Your task to perform on an android device: Open ESPN.com Image 0: 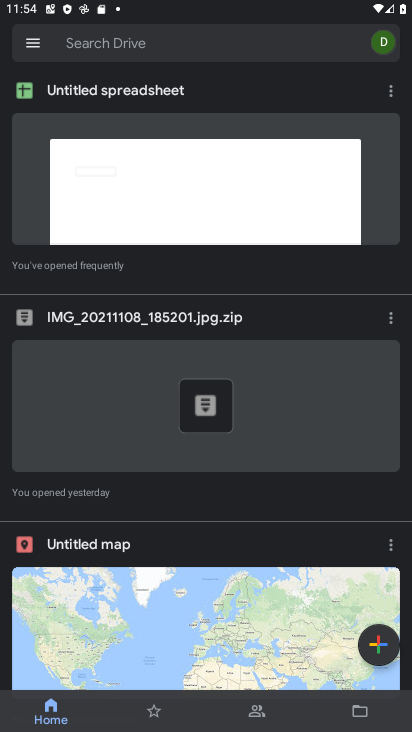
Step 0: press home button
Your task to perform on an android device: Open ESPN.com Image 1: 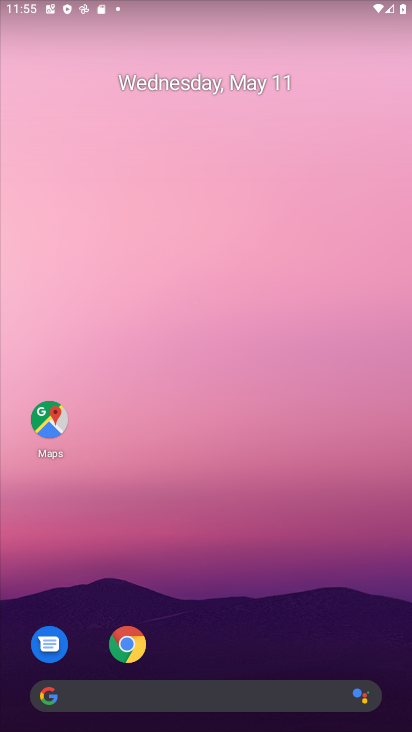
Step 1: click (120, 655)
Your task to perform on an android device: Open ESPN.com Image 2: 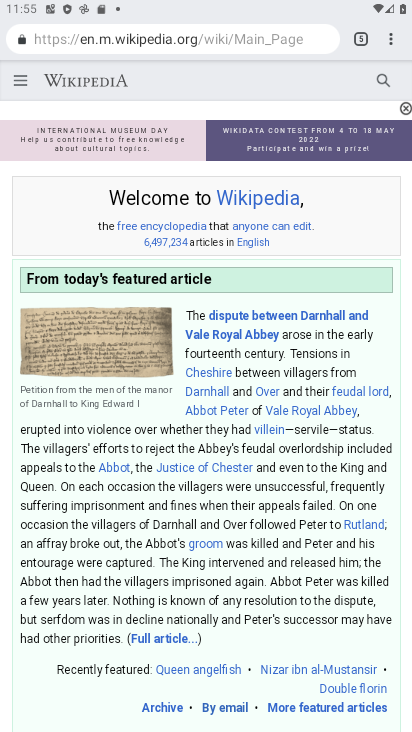
Step 2: click (267, 35)
Your task to perform on an android device: Open ESPN.com Image 3: 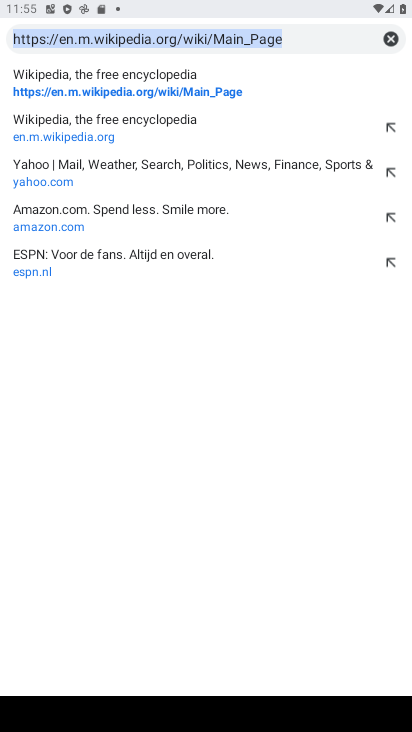
Step 3: click (162, 259)
Your task to perform on an android device: Open ESPN.com Image 4: 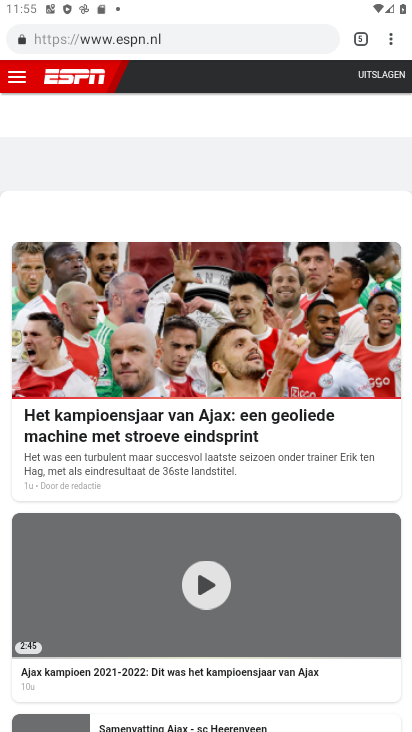
Step 4: task complete